Your task to perform on an android device: turn off notifications settings in the gmail app Image 0: 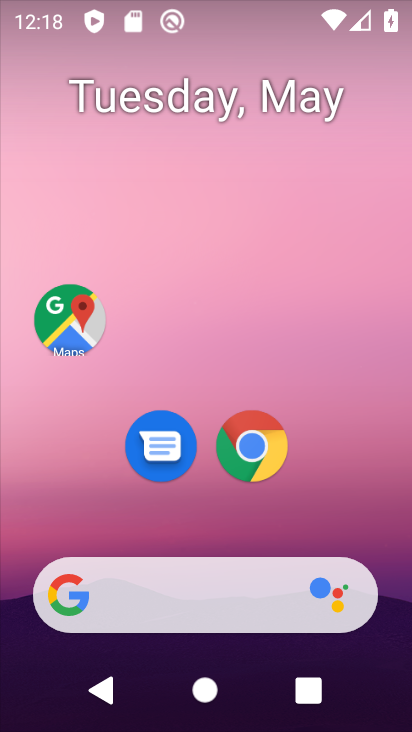
Step 0: drag from (299, 634) to (289, 47)
Your task to perform on an android device: turn off notifications settings in the gmail app Image 1: 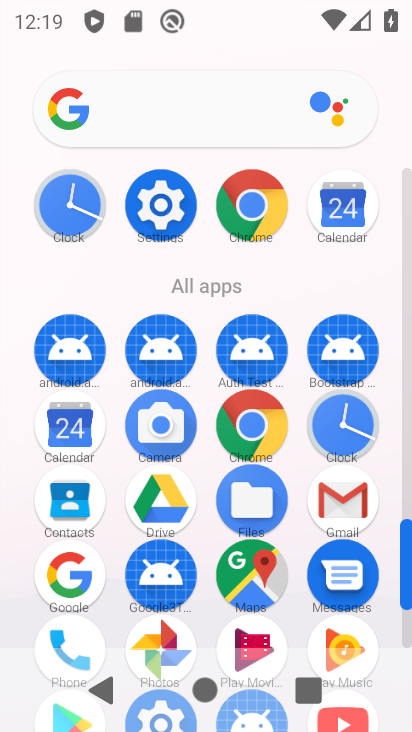
Step 1: click (344, 516)
Your task to perform on an android device: turn off notifications settings in the gmail app Image 2: 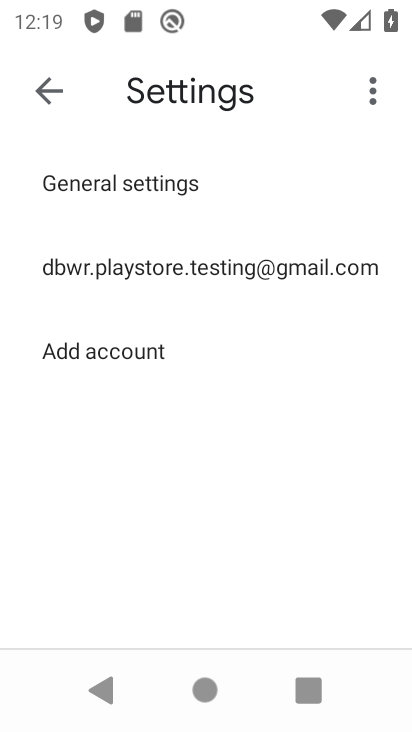
Step 2: click (183, 181)
Your task to perform on an android device: turn off notifications settings in the gmail app Image 3: 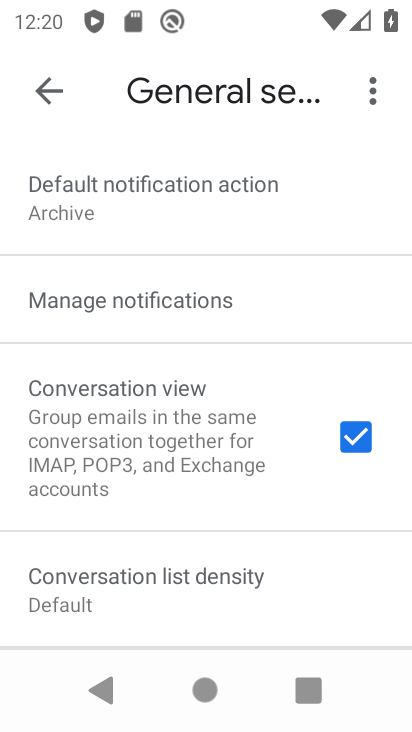
Step 3: click (184, 297)
Your task to perform on an android device: turn off notifications settings in the gmail app Image 4: 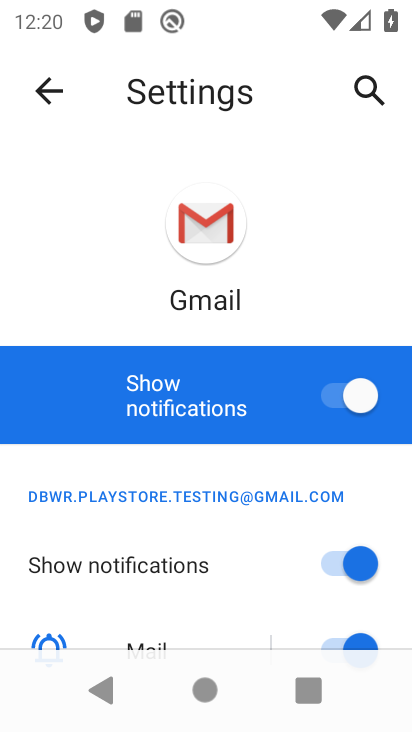
Step 4: click (331, 403)
Your task to perform on an android device: turn off notifications settings in the gmail app Image 5: 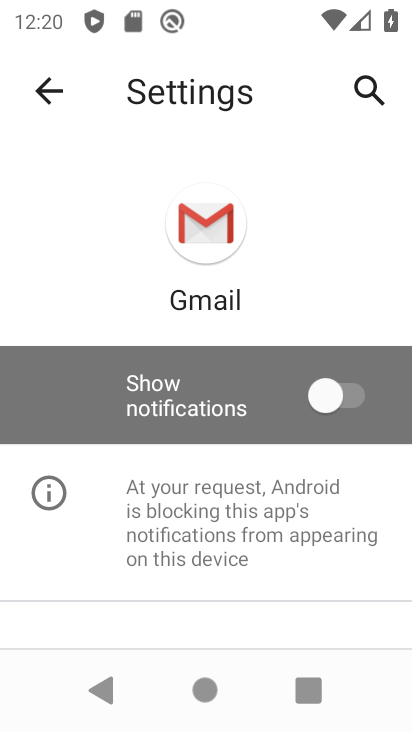
Step 5: task complete